Your task to perform on an android device: toggle notification dots Image 0: 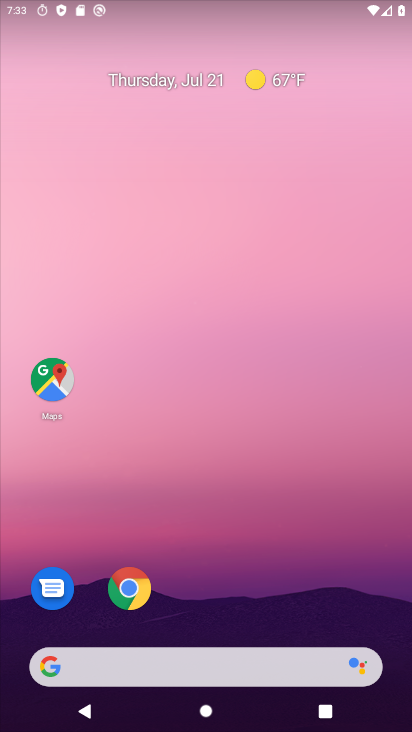
Step 0: drag from (212, 616) to (280, 126)
Your task to perform on an android device: toggle notification dots Image 1: 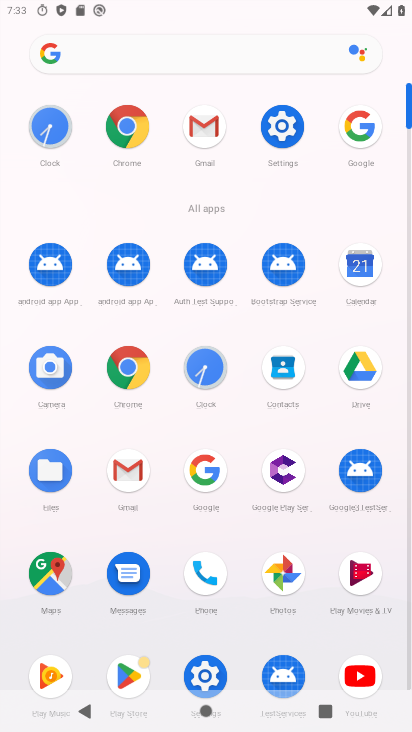
Step 1: click (280, 135)
Your task to perform on an android device: toggle notification dots Image 2: 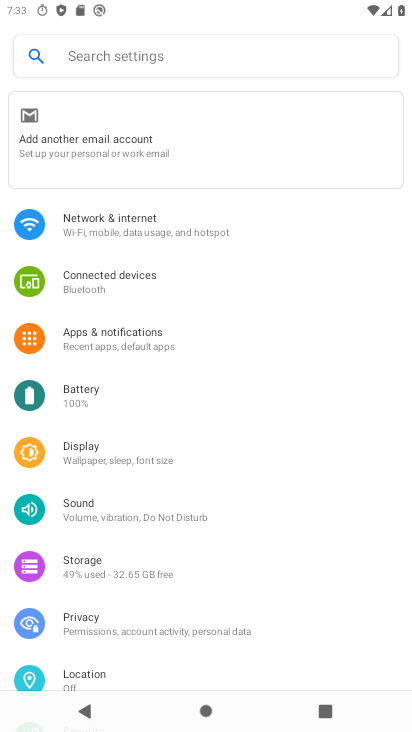
Step 2: click (105, 345)
Your task to perform on an android device: toggle notification dots Image 3: 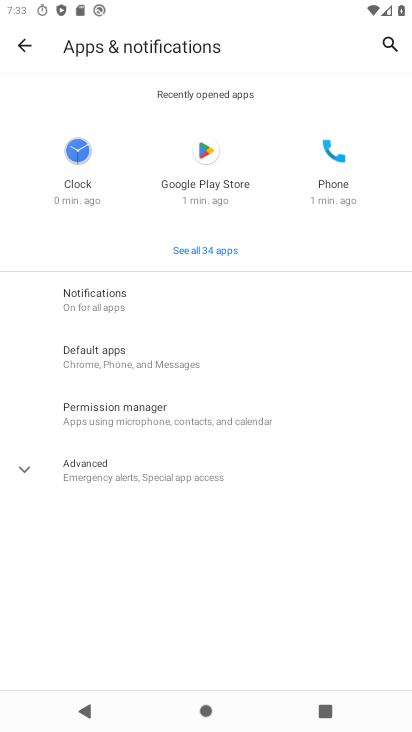
Step 3: click (94, 298)
Your task to perform on an android device: toggle notification dots Image 4: 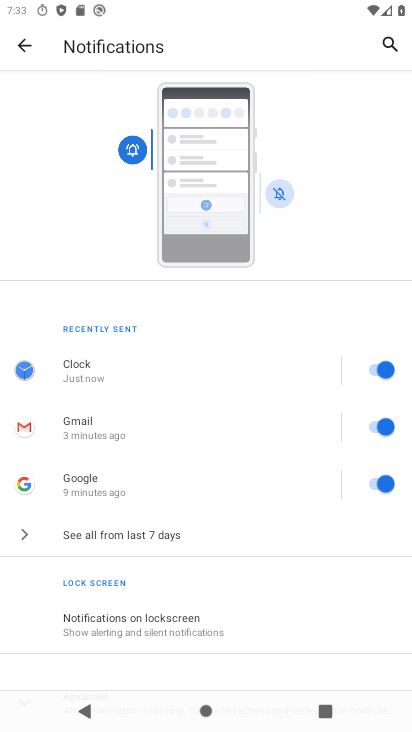
Step 4: drag from (117, 592) to (144, 320)
Your task to perform on an android device: toggle notification dots Image 5: 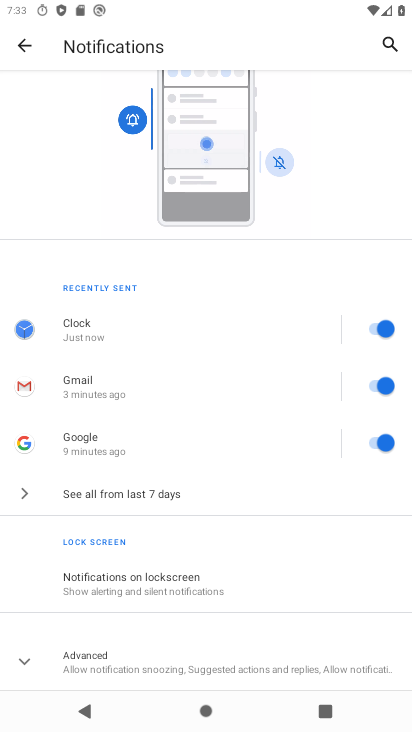
Step 5: click (66, 664)
Your task to perform on an android device: toggle notification dots Image 6: 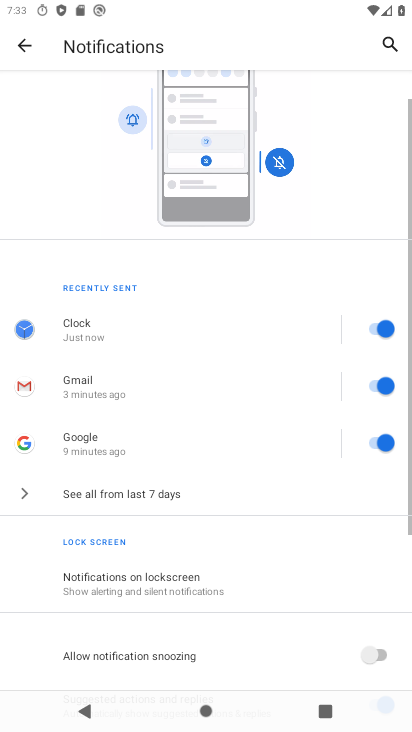
Step 6: task complete